Your task to perform on an android device: How much does a 2 bedroom apartment rent for in Chicago? Image 0: 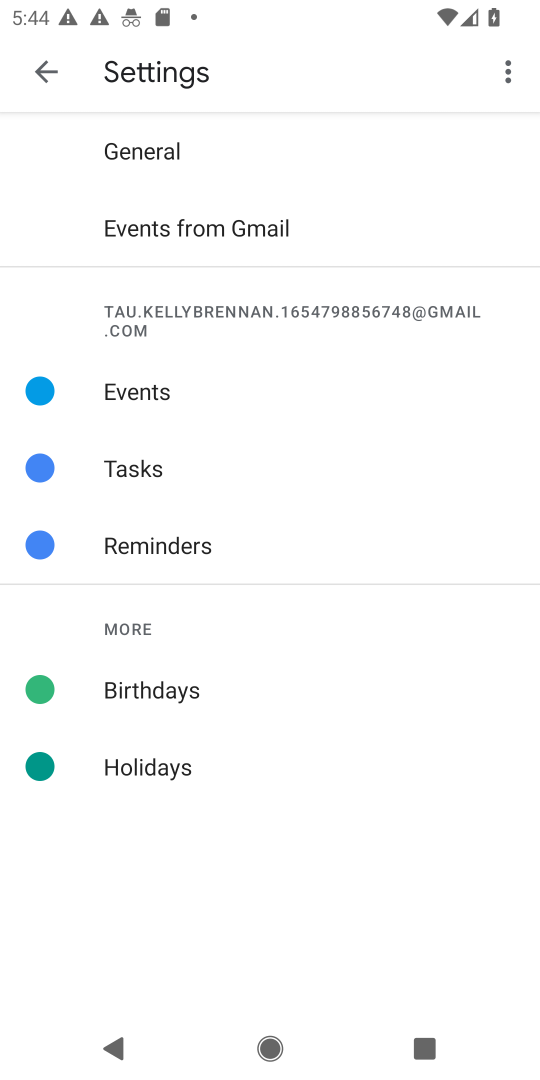
Step 0: press home button
Your task to perform on an android device: How much does a 2 bedroom apartment rent for in Chicago? Image 1: 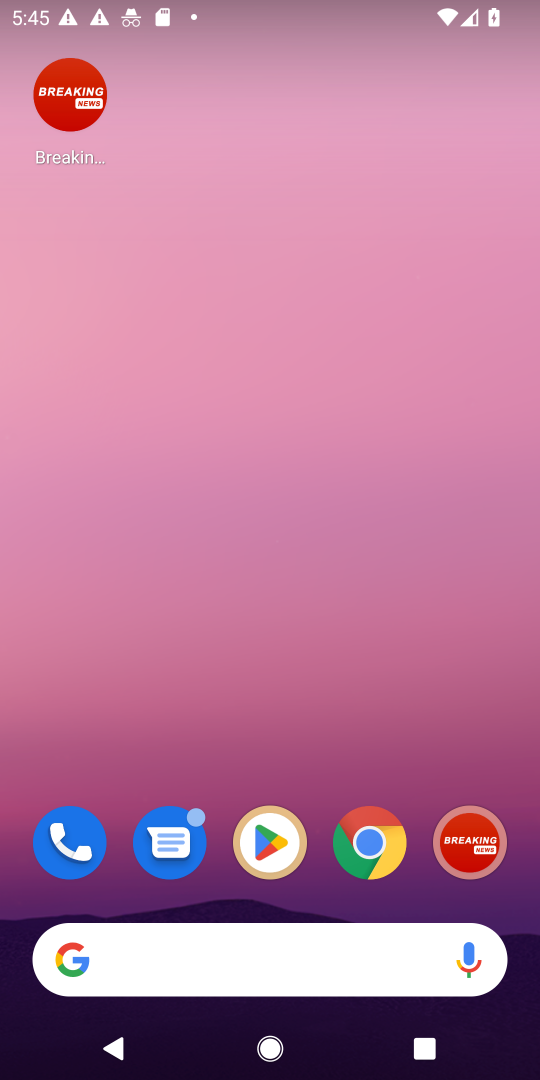
Step 1: click (286, 848)
Your task to perform on an android device: How much does a 2 bedroom apartment rent for in Chicago? Image 2: 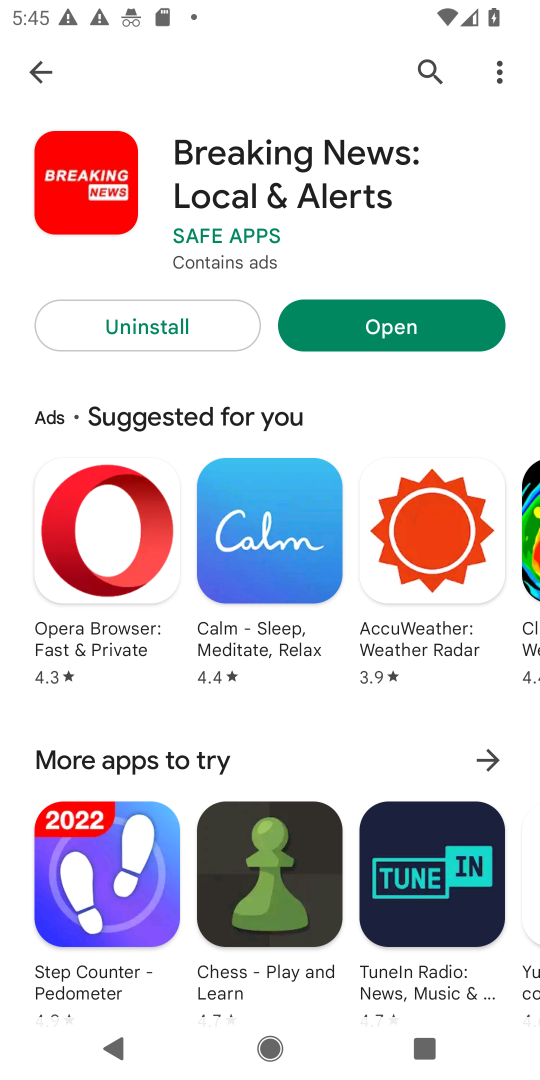
Step 2: press home button
Your task to perform on an android device: How much does a 2 bedroom apartment rent for in Chicago? Image 3: 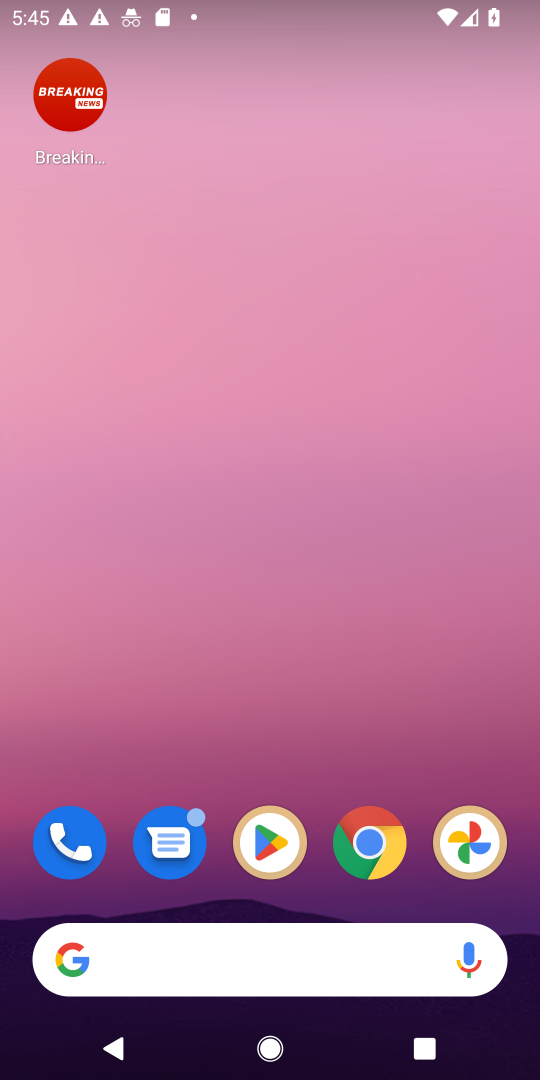
Step 3: click (258, 965)
Your task to perform on an android device: How much does a 2 bedroom apartment rent for in Chicago? Image 4: 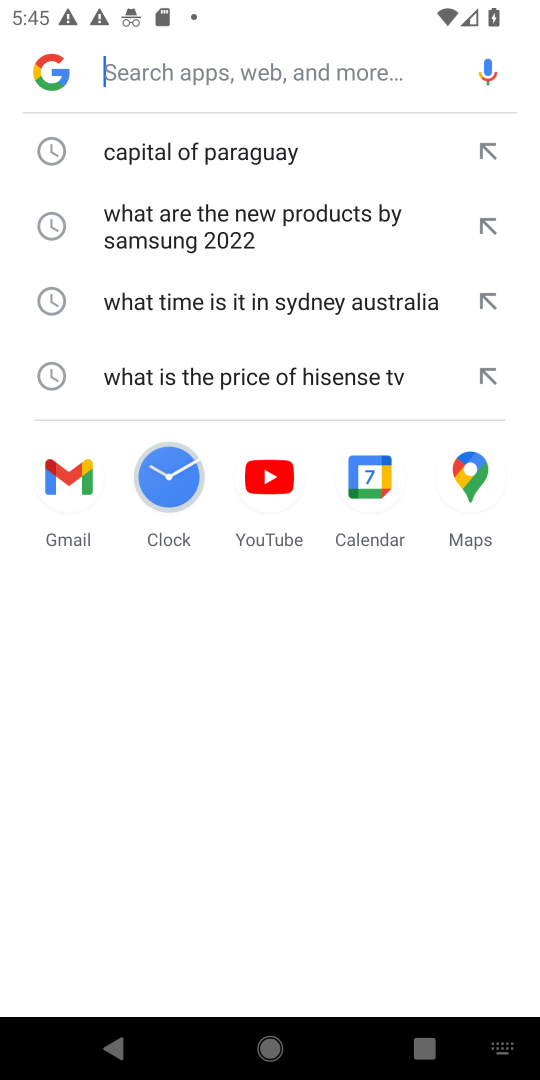
Step 4: click (224, 66)
Your task to perform on an android device: How much does a 2 bedroom apartment rent for in Chicago? Image 5: 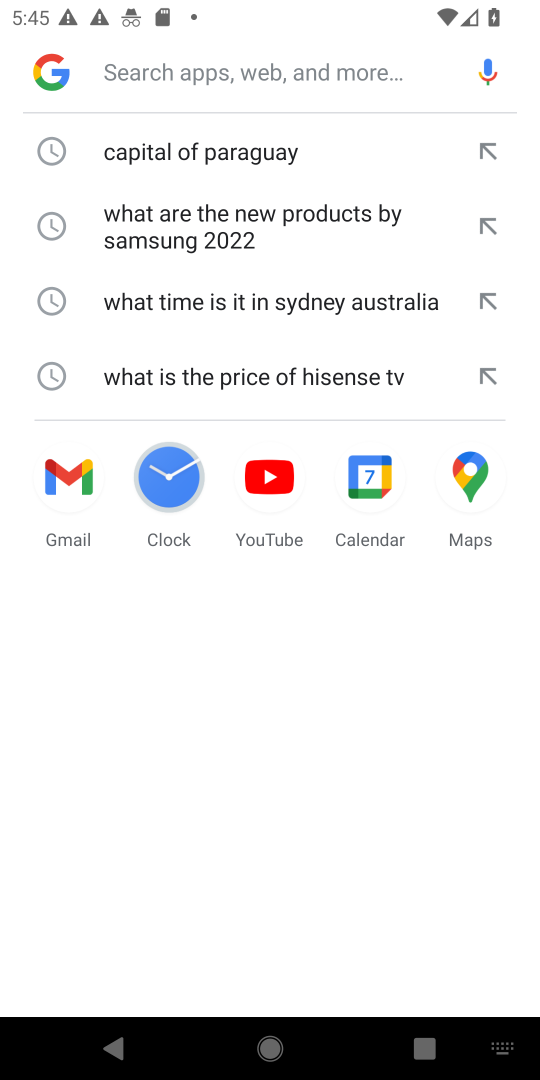
Step 5: type "How much does a 2 bedroom apartment rent for in Chicago"
Your task to perform on an android device: How much does a 2 bedroom apartment rent for in Chicago? Image 6: 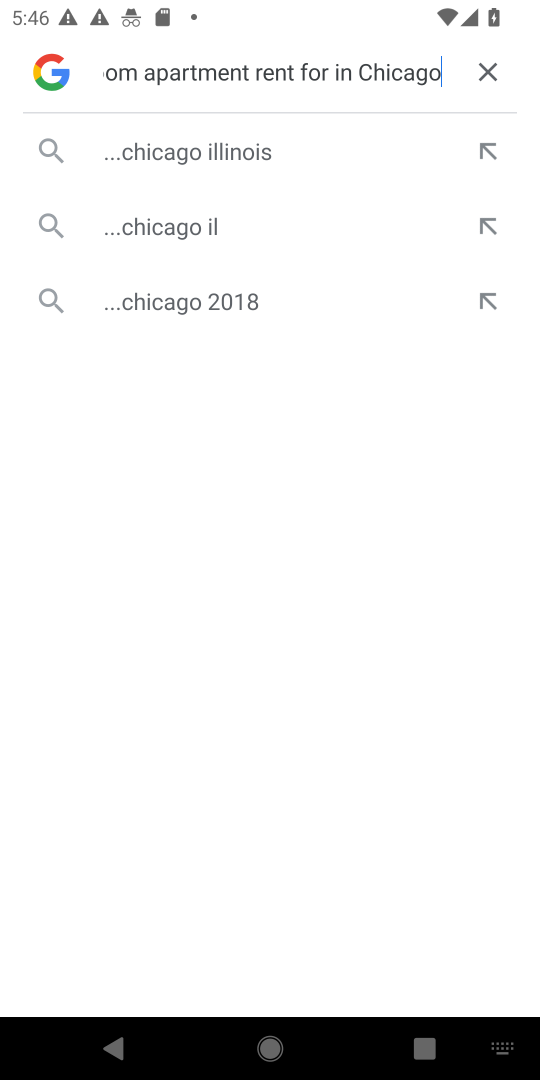
Step 6: click (280, 148)
Your task to perform on an android device: How much does a 2 bedroom apartment rent for in Chicago? Image 7: 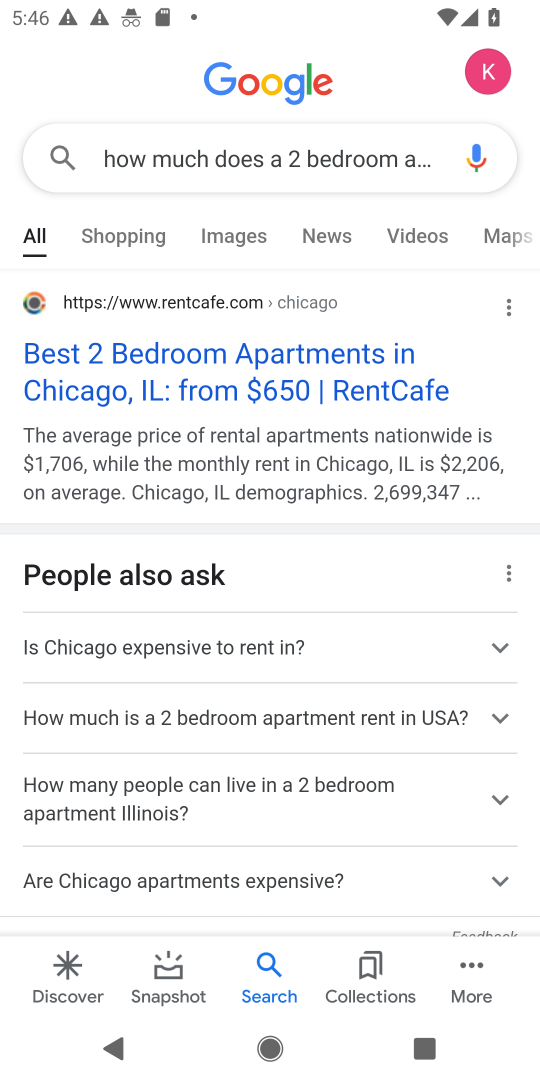
Step 7: task complete